Your task to perform on an android device: Open Google Chrome and open the bookmarks view Image 0: 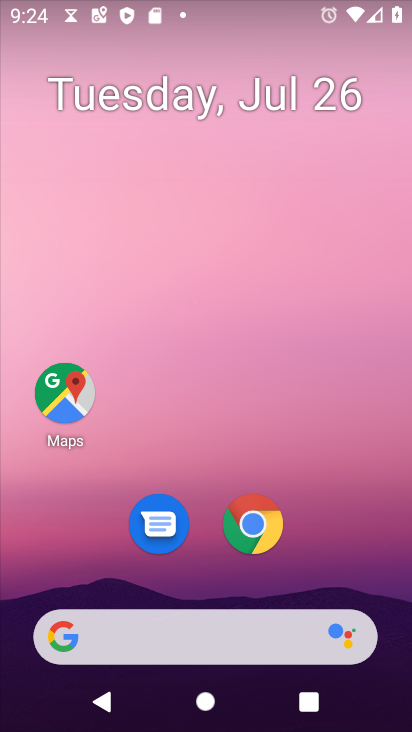
Step 0: click (248, 529)
Your task to perform on an android device: Open Google Chrome and open the bookmarks view Image 1: 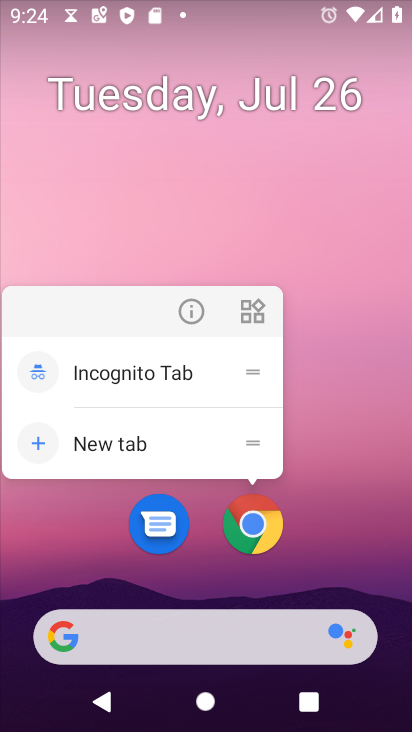
Step 1: click (248, 529)
Your task to perform on an android device: Open Google Chrome and open the bookmarks view Image 2: 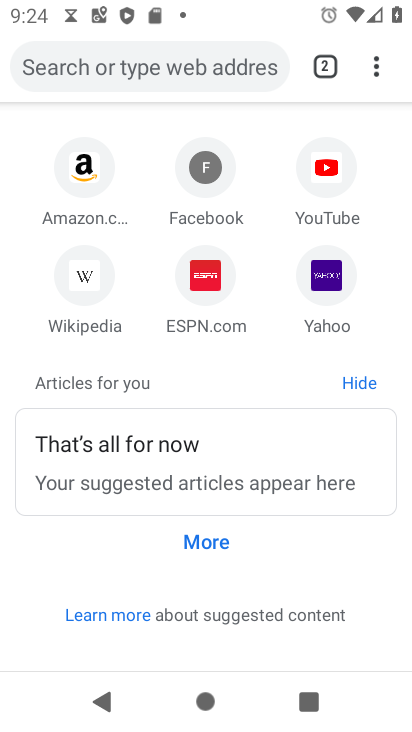
Step 2: task complete